Your task to perform on an android device: create a new album in the google photos Image 0: 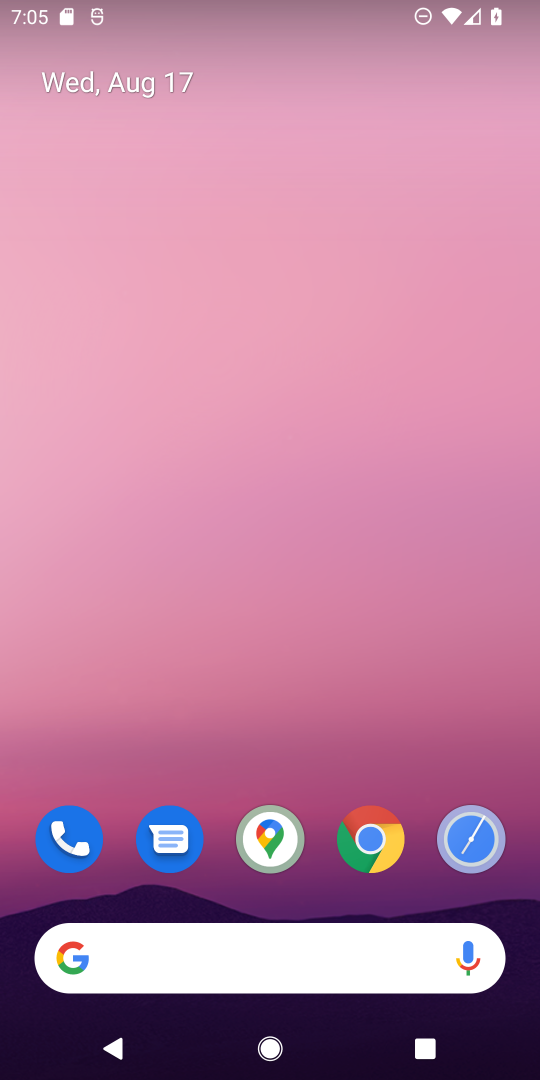
Step 0: click (529, 967)
Your task to perform on an android device: create a new album in the google photos Image 1: 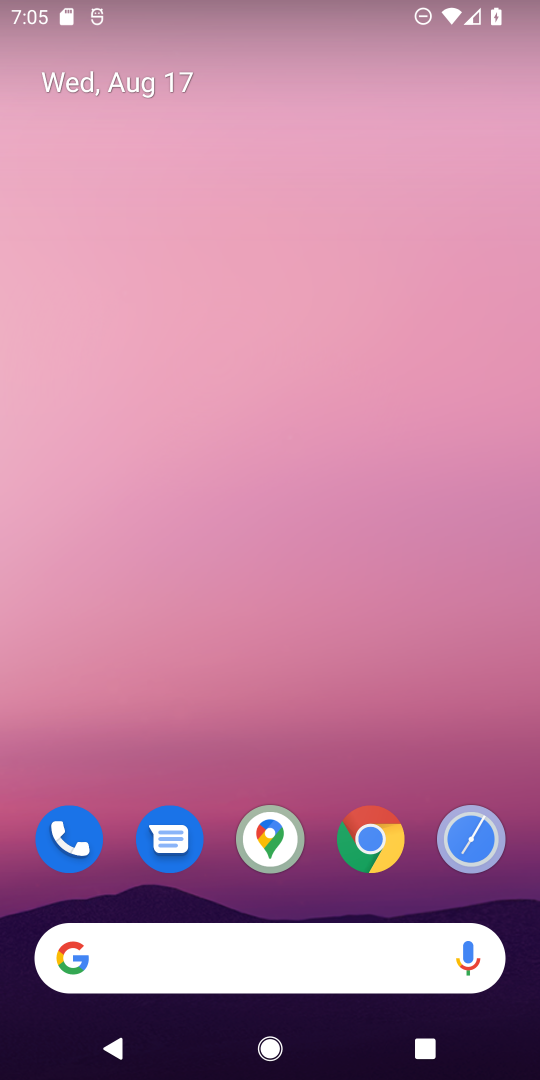
Step 1: drag from (274, 892) to (167, 330)
Your task to perform on an android device: create a new album in the google photos Image 2: 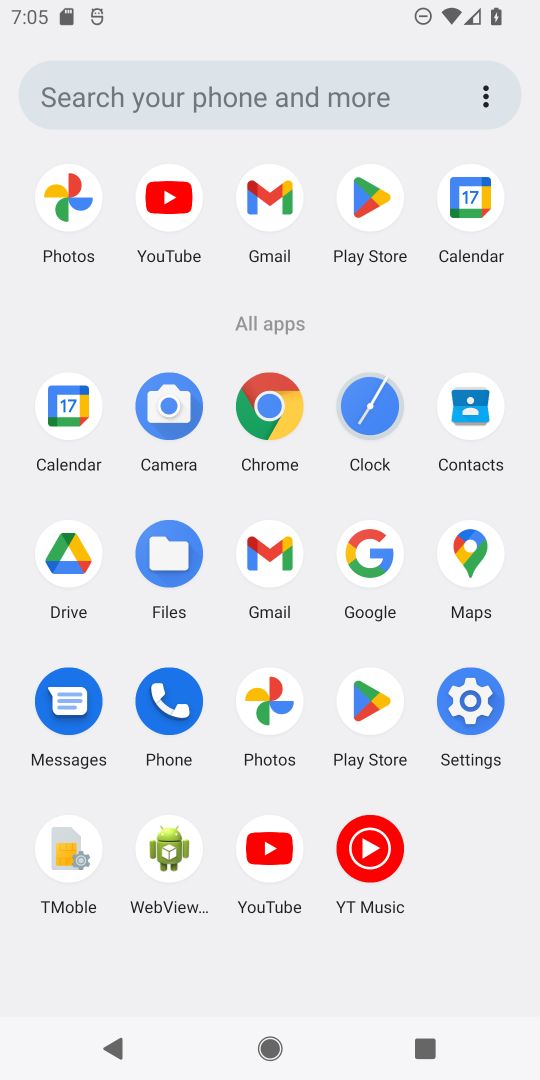
Step 2: click (267, 697)
Your task to perform on an android device: create a new album in the google photos Image 3: 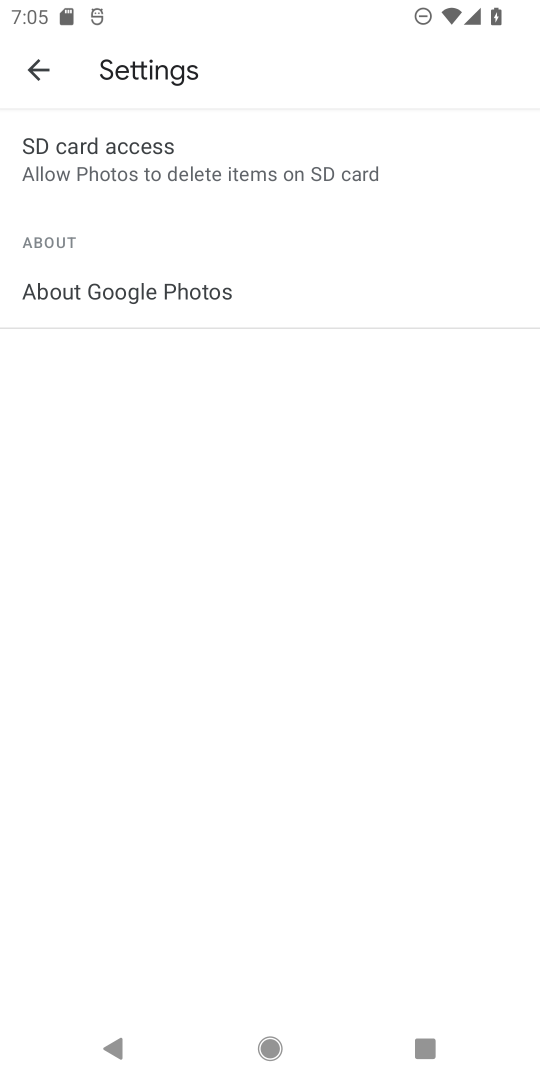
Step 3: click (42, 66)
Your task to perform on an android device: create a new album in the google photos Image 4: 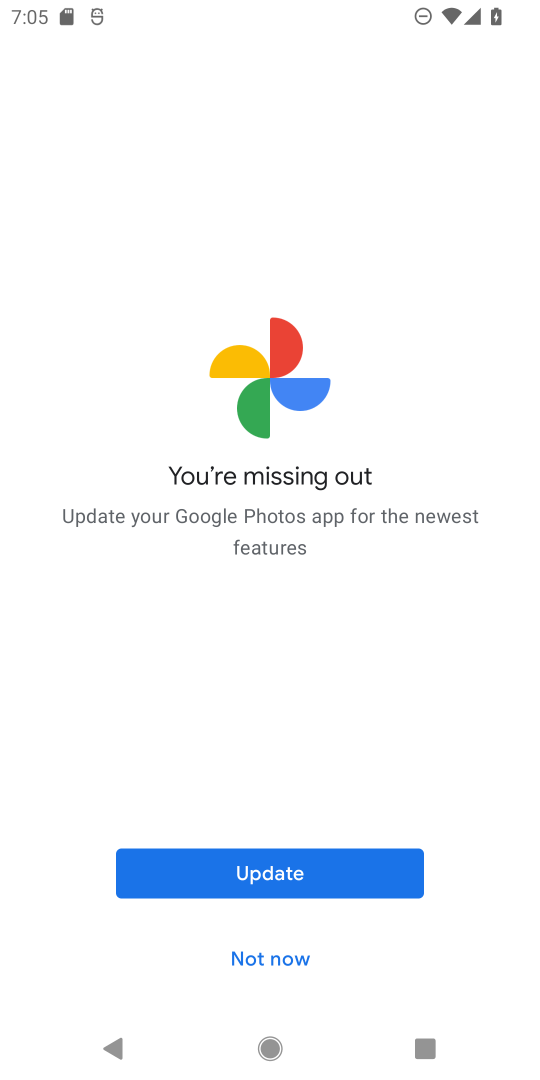
Step 4: click (279, 966)
Your task to perform on an android device: create a new album in the google photos Image 5: 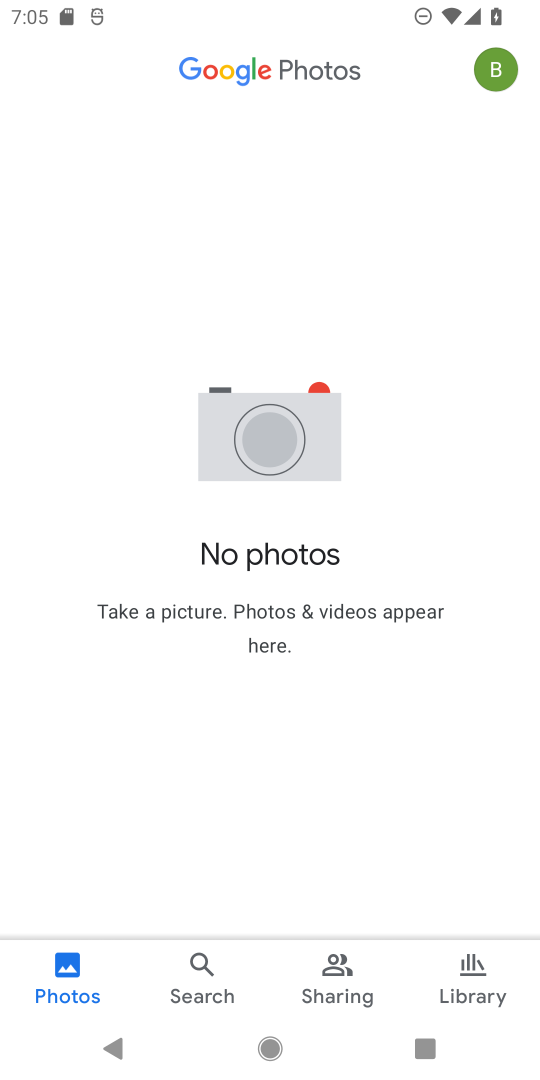
Step 5: task complete